Your task to perform on an android device: Go to Android settings Image 0: 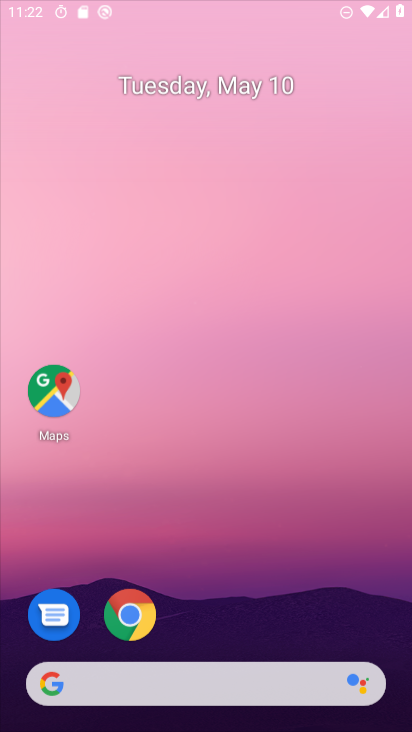
Step 0: drag from (218, 558) to (276, 133)
Your task to perform on an android device: Go to Android settings Image 1: 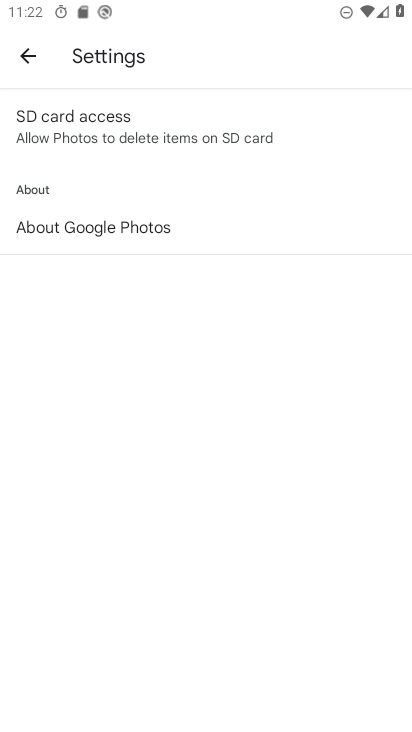
Step 1: drag from (272, 596) to (329, 166)
Your task to perform on an android device: Go to Android settings Image 2: 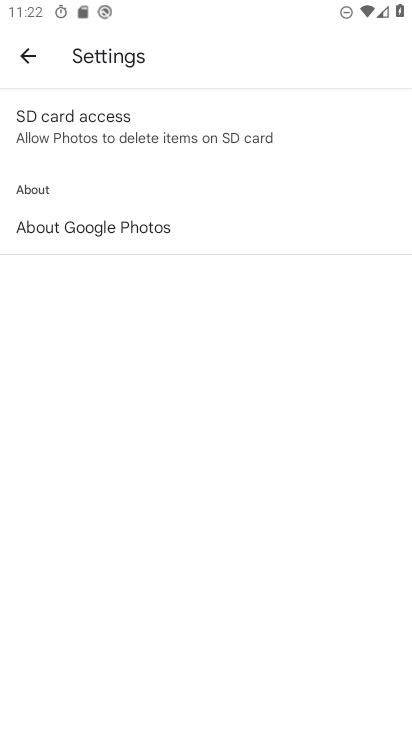
Step 2: press home button
Your task to perform on an android device: Go to Android settings Image 3: 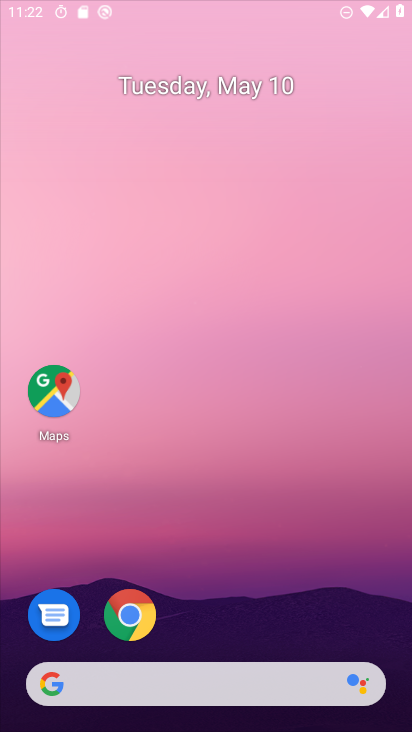
Step 3: drag from (167, 628) to (264, 278)
Your task to perform on an android device: Go to Android settings Image 4: 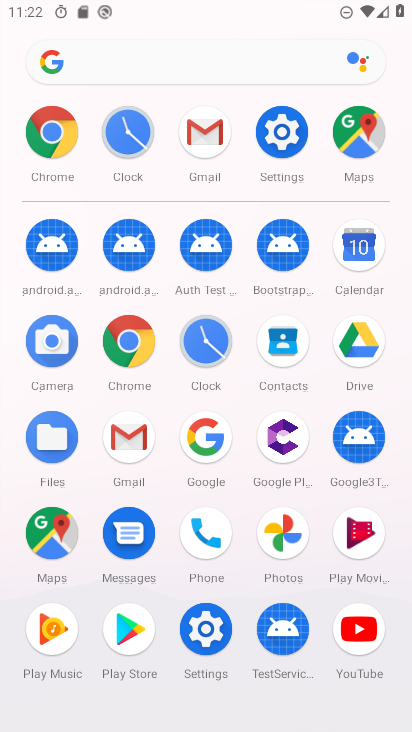
Step 4: click (289, 125)
Your task to perform on an android device: Go to Android settings Image 5: 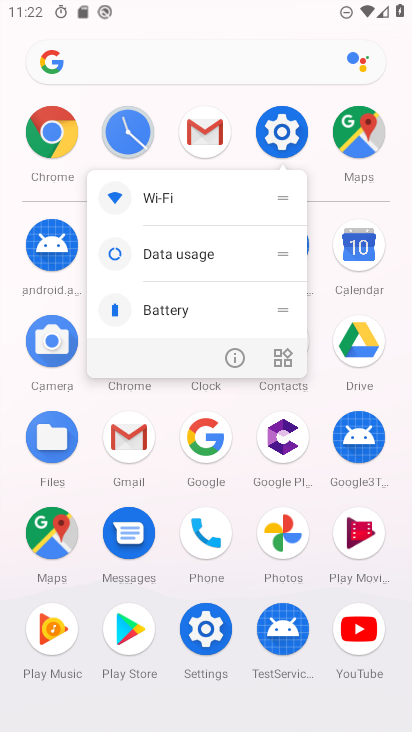
Step 5: click (234, 358)
Your task to perform on an android device: Go to Android settings Image 6: 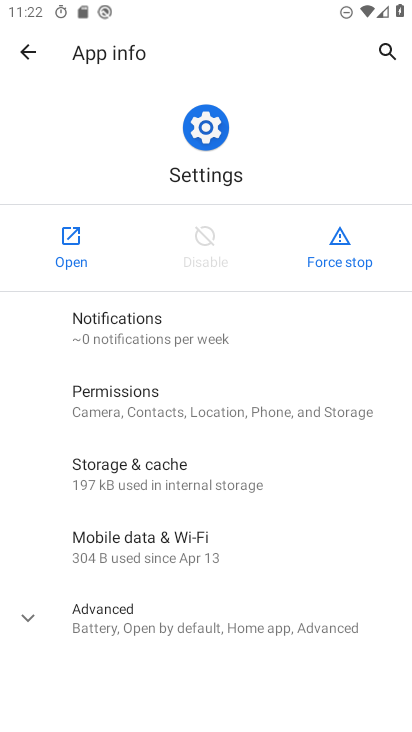
Step 6: click (63, 249)
Your task to perform on an android device: Go to Android settings Image 7: 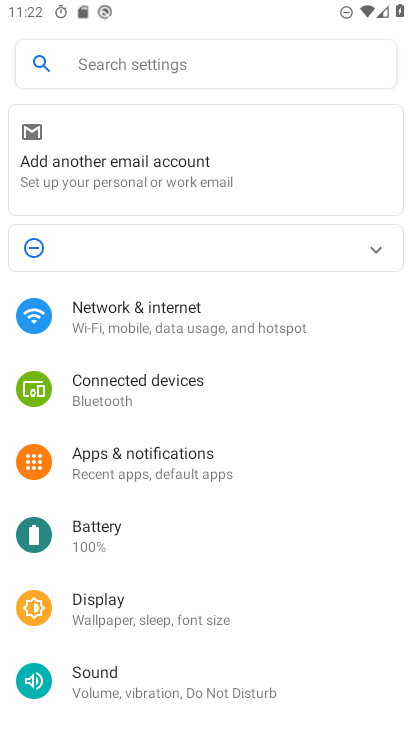
Step 7: drag from (224, 664) to (322, 168)
Your task to perform on an android device: Go to Android settings Image 8: 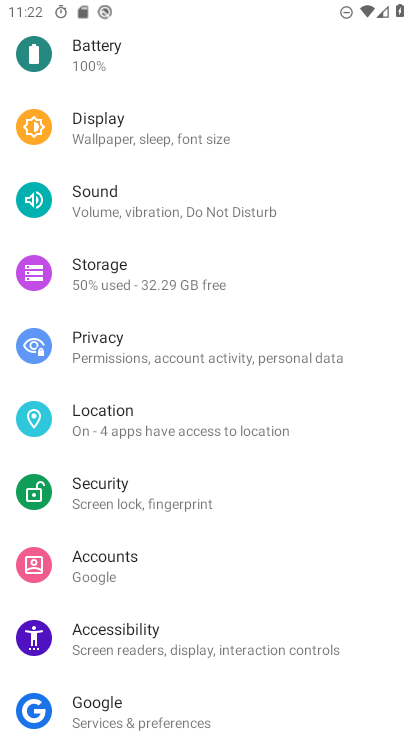
Step 8: drag from (177, 564) to (315, 213)
Your task to perform on an android device: Go to Android settings Image 9: 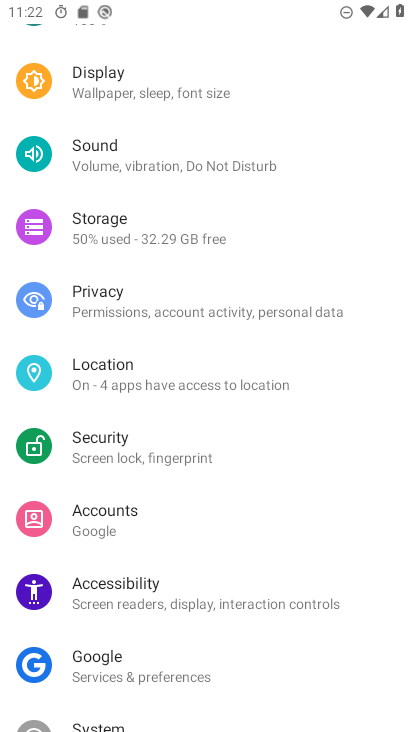
Step 9: drag from (190, 701) to (308, 163)
Your task to perform on an android device: Go to Android settings Image 10: 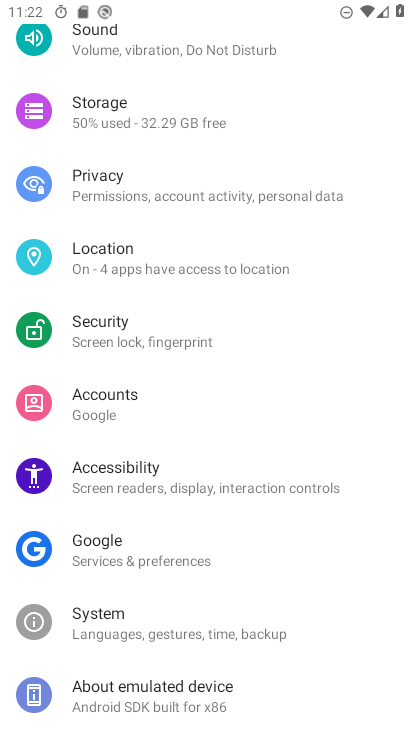
Step 10: click (153, 690)
Your task to perform on an android device: Go to Android settings Image 11: 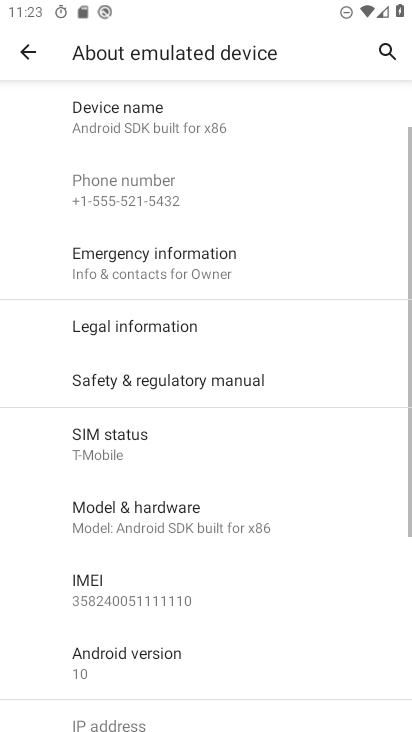
Step 11: drag from (201, 659) to (268, 295)
Your task to perform on an android device: Go to Android settings Image 12: 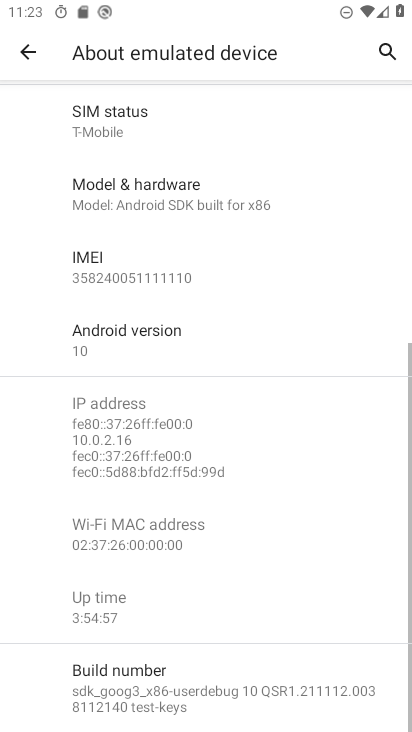
Step 12: click (155, 352)
Your task to perform on an android device: Go to Android settings Image 13: 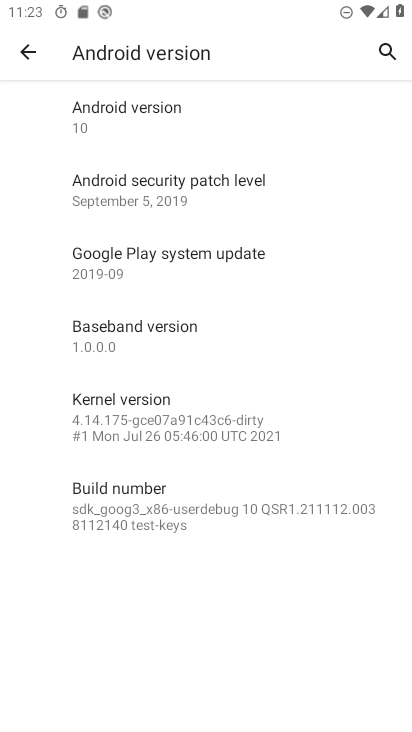
Step 13: task complete